Your task to perform on an android device: Open accessibility settings Image 0: 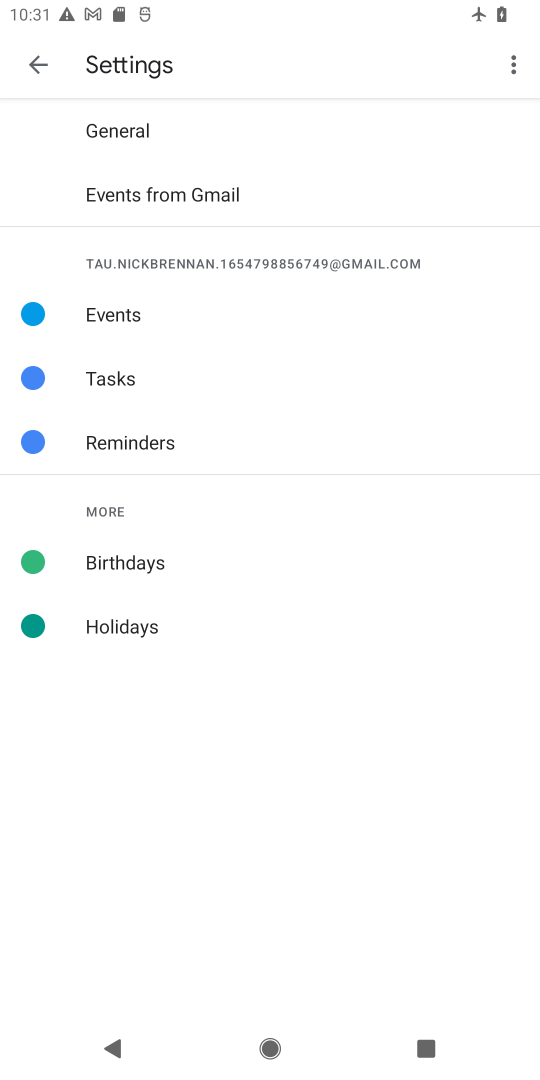
Step 0: press home button
Your task to perform on an android device: Open accessibility settings Image 1: 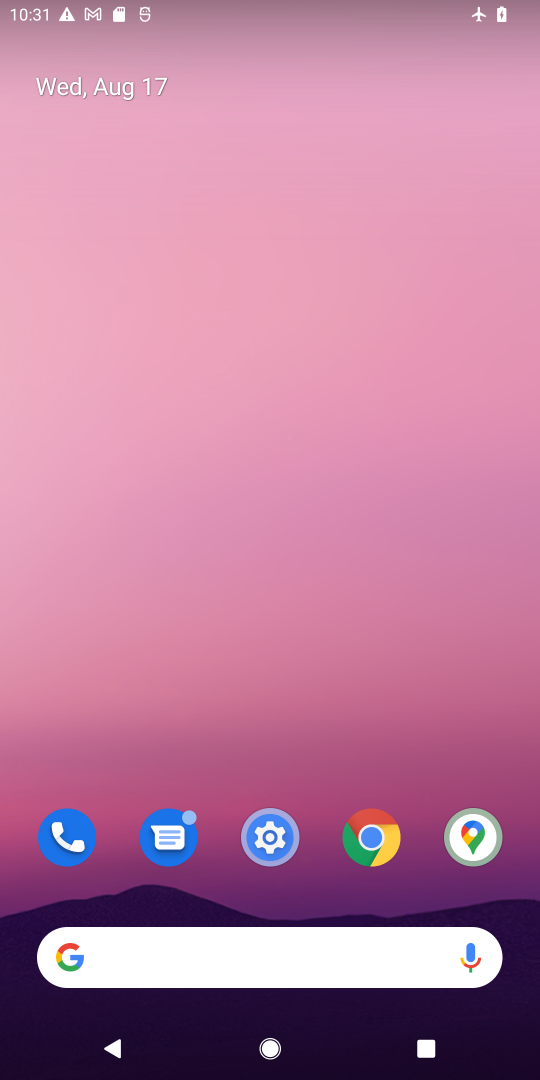
Step 1: drag from (227, 937) to (274, 51)
Your task to perform on an android device: Open accessibility settings Image 2: 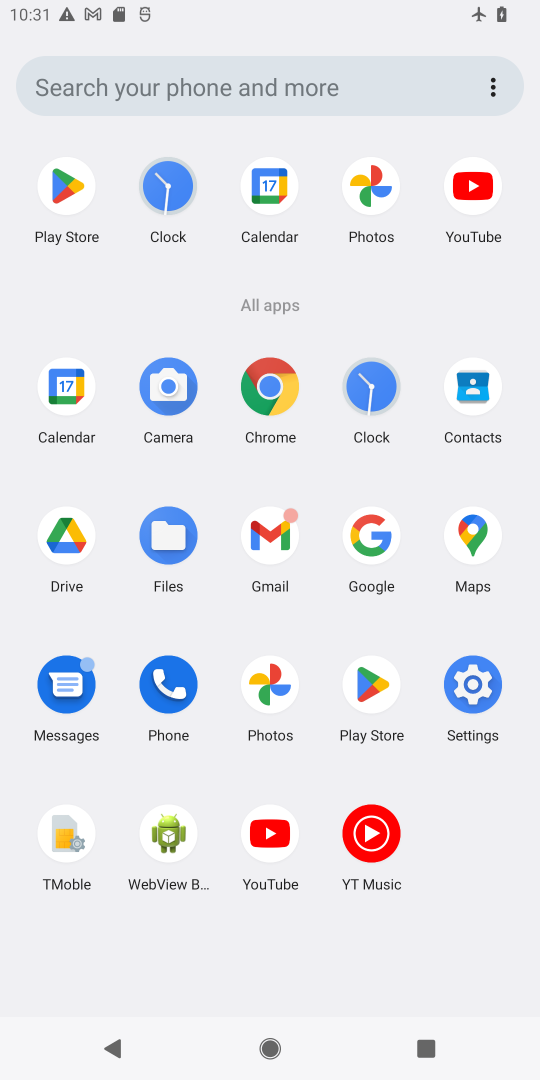
Step 2: click (473, 688)
Your task to perform on an android device: Open accessibility settings Image 3: 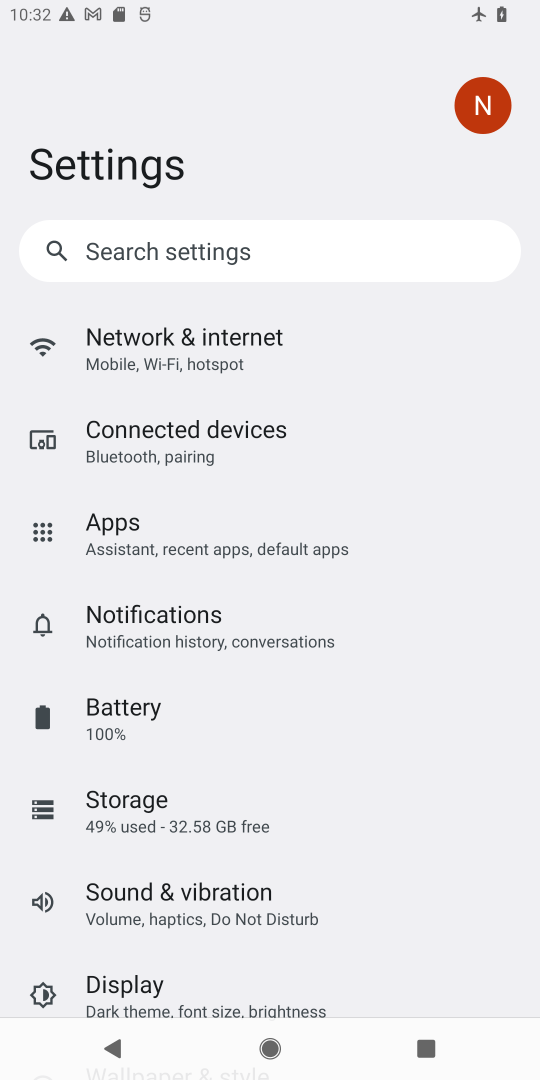
Step 3: drag from (194, 848) to (302, 675)
Your task to perform on an android device: Open accessibility settings Image 4: 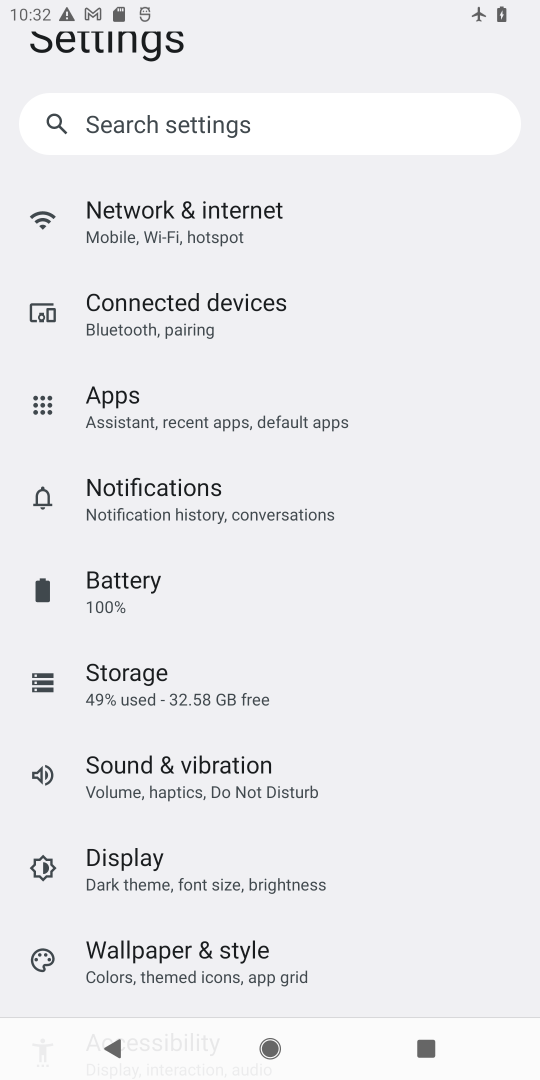
Step 4: drag from (218, 886) to (349, 720)
Your task to perform on an android device: Open accessibility settings Image 5: 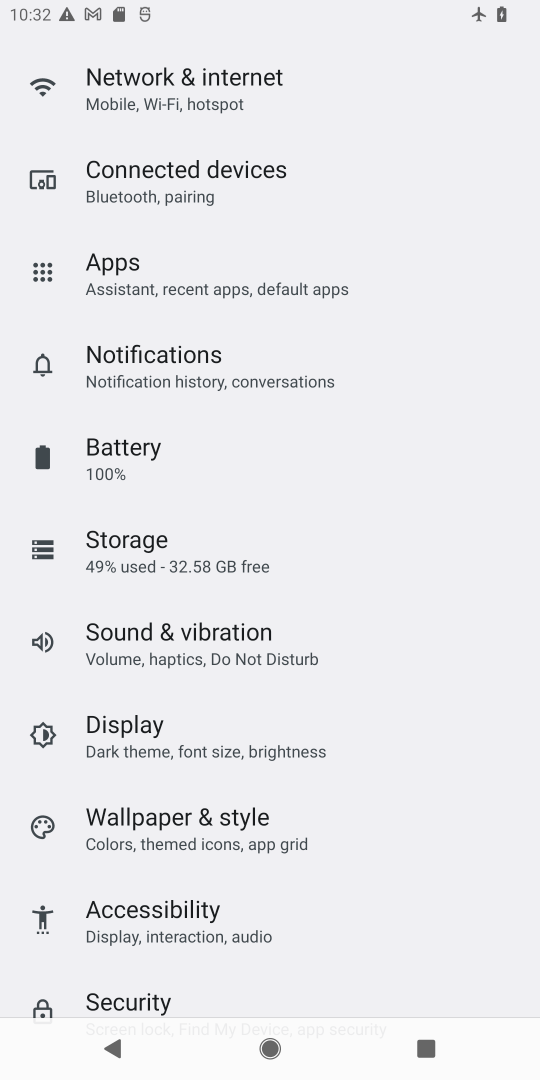
Step 5: click (190, 929)
Your task to perform on an android device: Open accessibility settings Image 6: 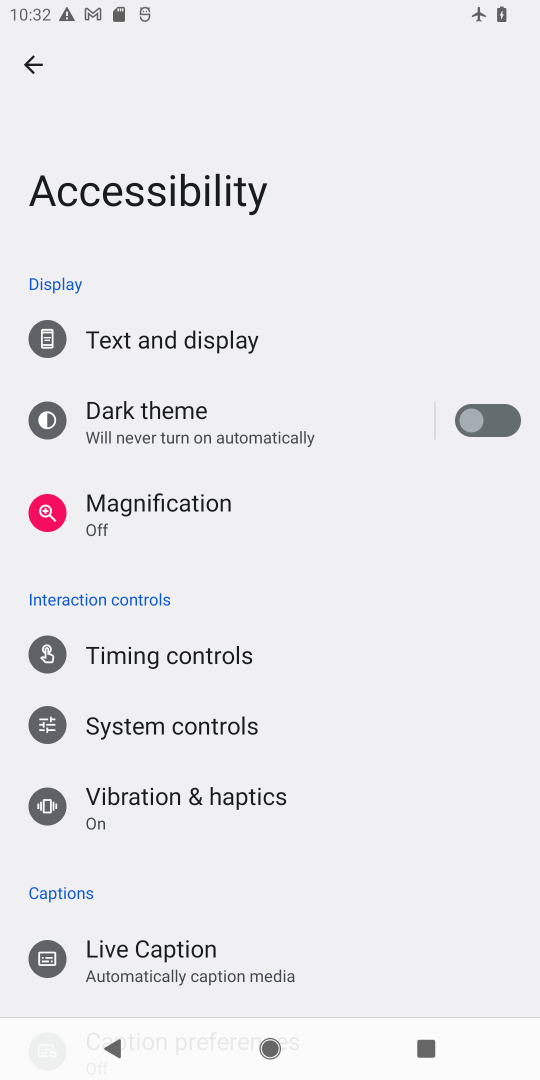
Step 6: task complete